Your task to perform on an android device: Open the Play Movies app and select the watchlist tab. Image 0: 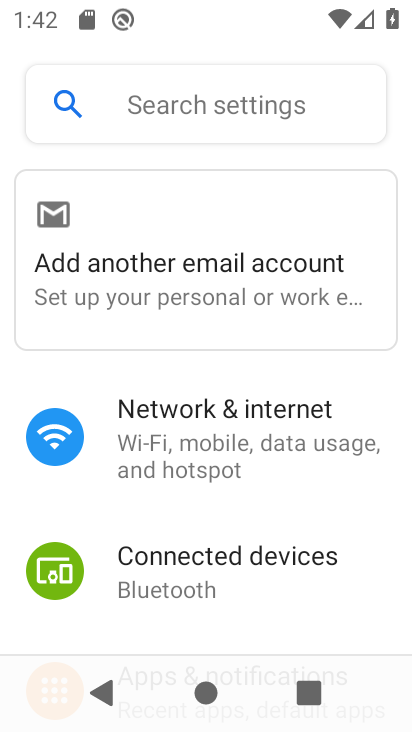
Step 0: press home button
Your task to perform on an android device: Open the Play Movies app and select the watchlist tab. Image 1: 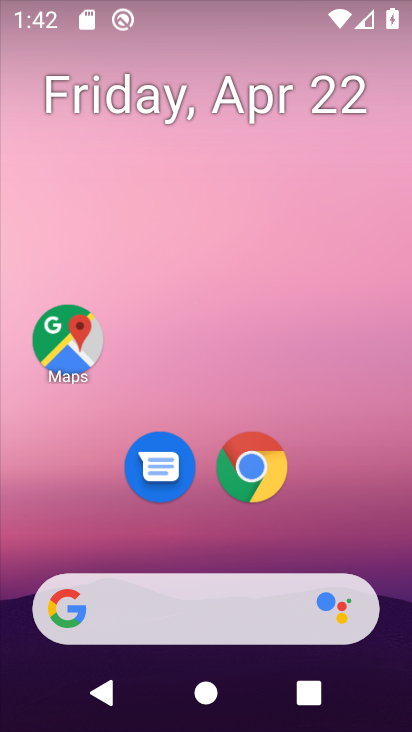
Step 1: drag from (335, 546) to (309, 108)
Your task to perform on an android device: Open the Play Movies app and select the watchlist tab. Image 2: 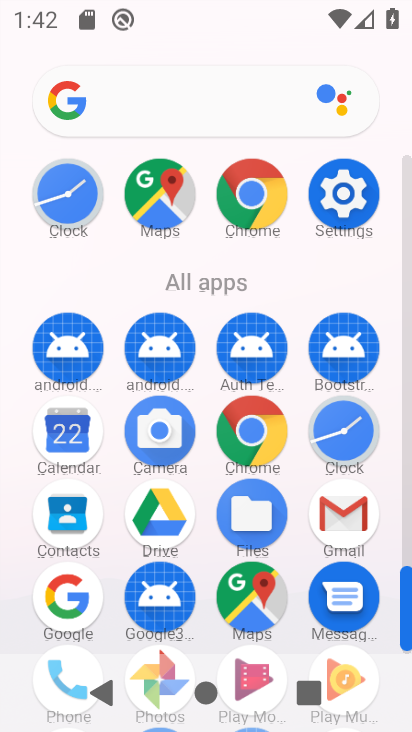
Step 2: drag from (306, 608) to (308, 365)
Your task to perform on an android device: Open the Play Movies app and select the watchlist tab. Image 3: 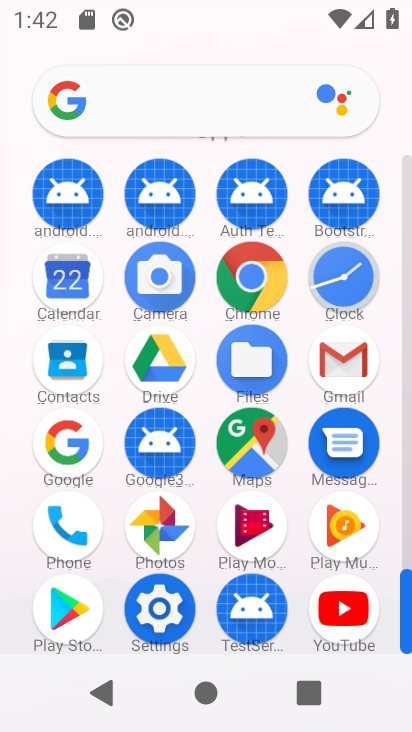
Step 3: click (254, 529)
Your task to perform on an android device: Open the Play Movies app and select the watchlist tab. Image 4: 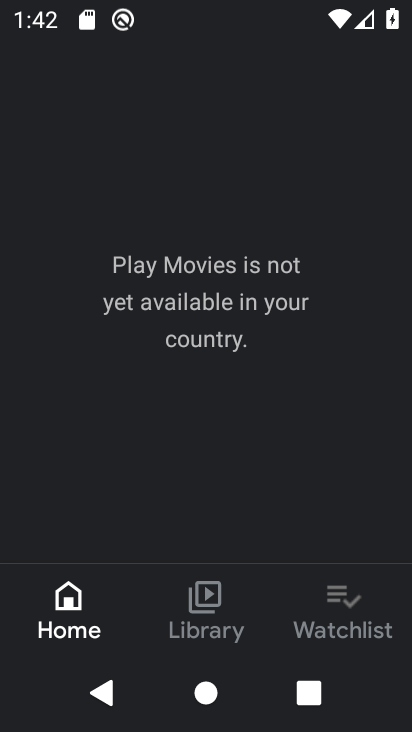
Step 4: task complete